Your task to perform on an android device: Is it going to rain tomorrow? Image 0: 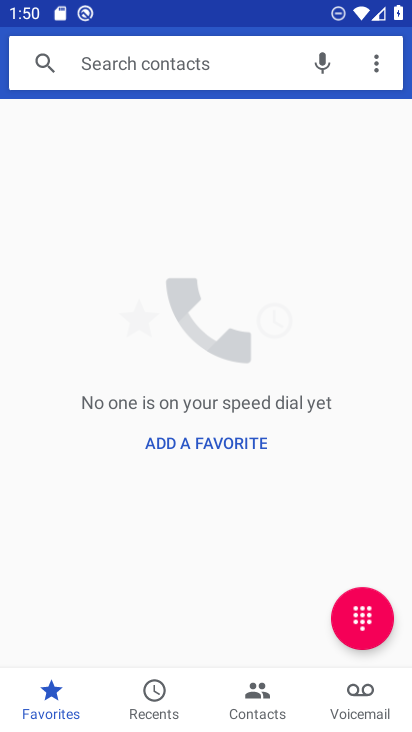
Step 0: press home button
Your task to perform on an android device: Is it going to rain tomorrow? Image 1: 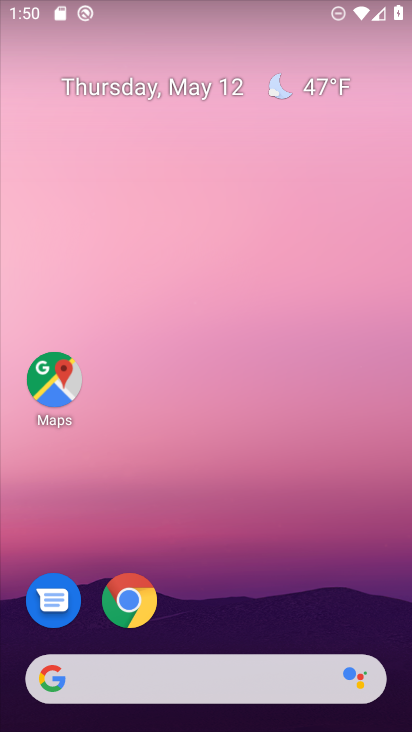
Step 1: click (278, 87)
Your task to perform on an android device: Is it going to rain tomorrow? Image 2: 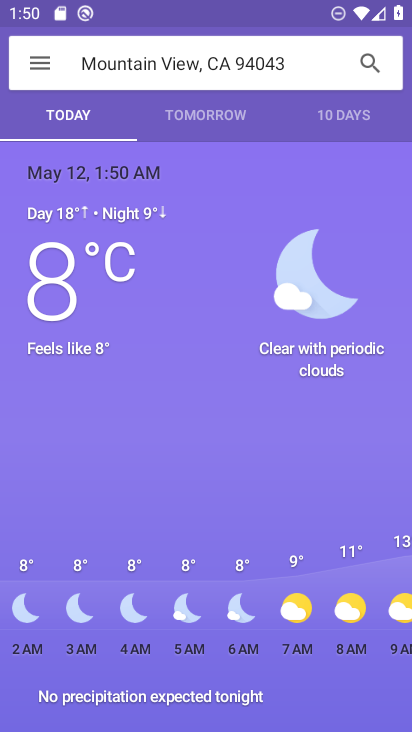
Step 2: click (204, 111)
Your task to perform on an android device: Is it going to rain tomorrow? Image 3: 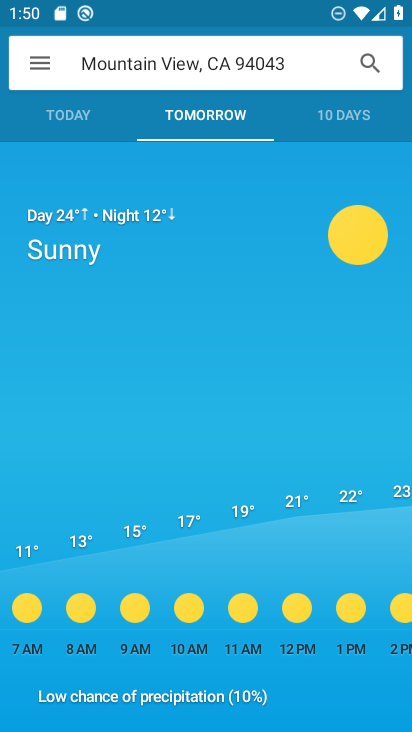
Step 3: task complete